Your task to perform on an android device: What is the recent news? Image 0: 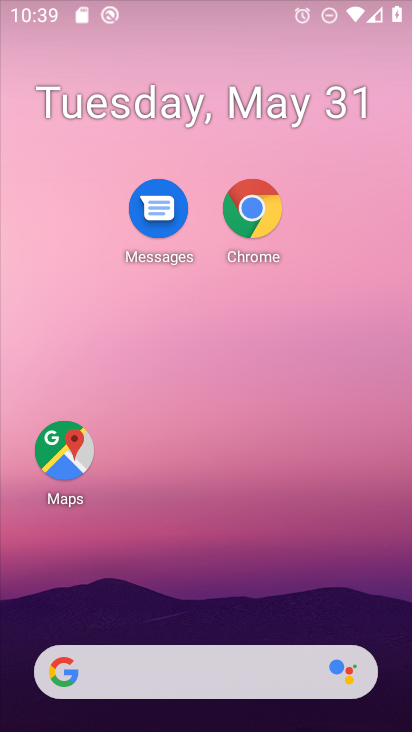
Step 0: press home button
Your task to perform on an android device: What is the recent news? Image 1: 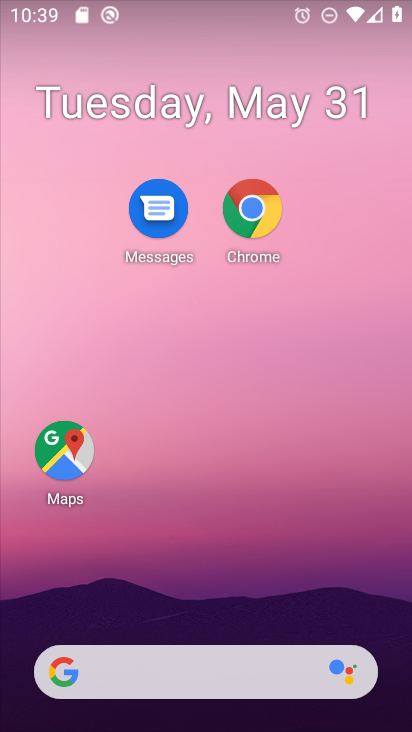
Step 1: task complete